Your task to perform on an android device: Open privacy settings Image 0: 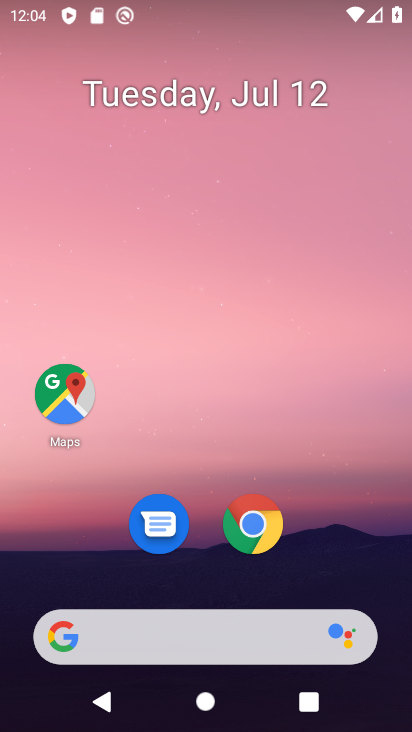
Step 0: drag from (262, 443) to (270, 22)
Your task to perform on an android device: Open privacy settings Image 1: 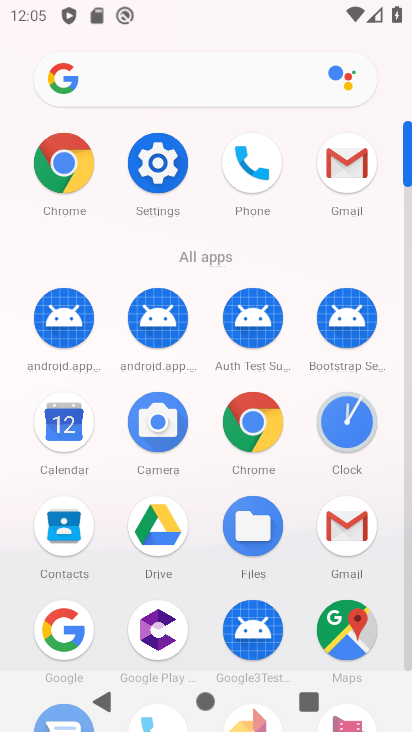
Step 1: click (158, 156)
Your task to perform on an android device: Open privacy settings Image 2: 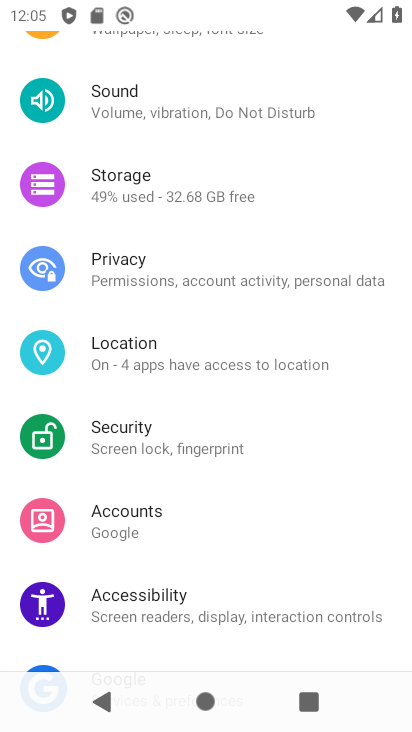
Step 2: click (155, 260)
Your task to perform on an android device: Open privacy settings Image 3: 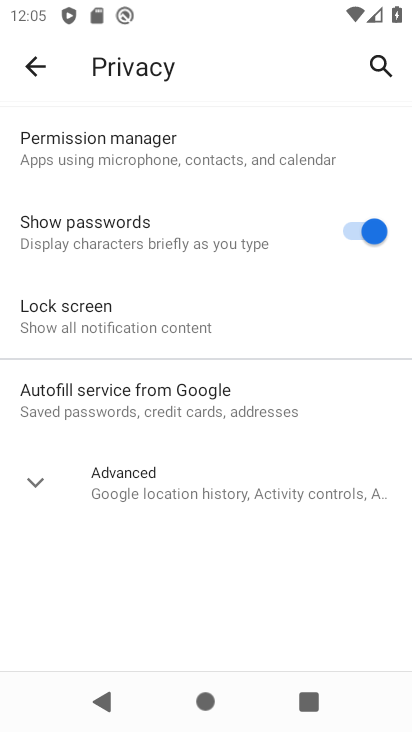
Step 3: click (34, 478)
Your task to perform on an android device: Open privacy settings Image 4: 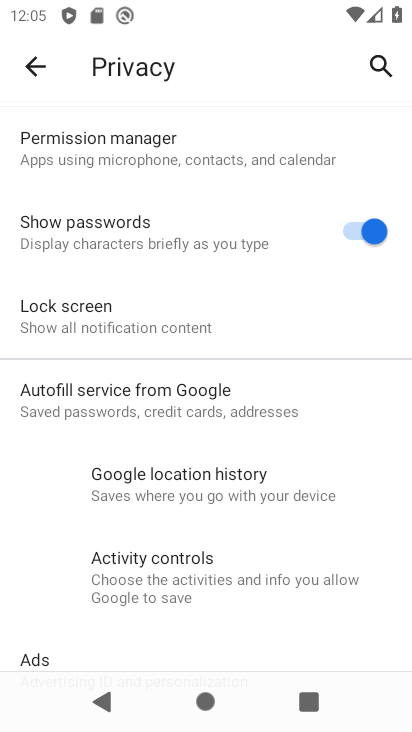
Step 4: task complete